Your task to perform on an android device: set an alarm Image 0: 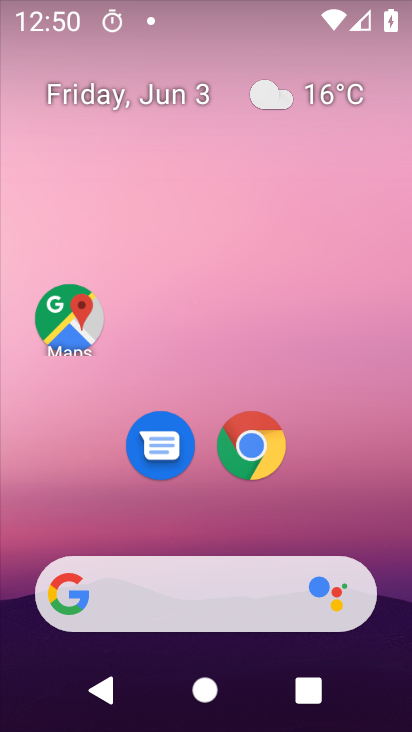
Step 0: drag from (195, 527) to (178, 103)
Your task to perform on an android device: set an alarm Image 1: 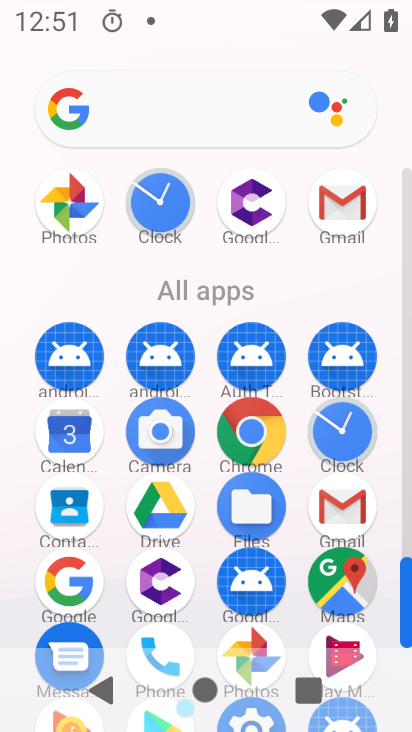
Step 1: click (128, 219)
Your task to perform on an android device: set an alarm Image 2: 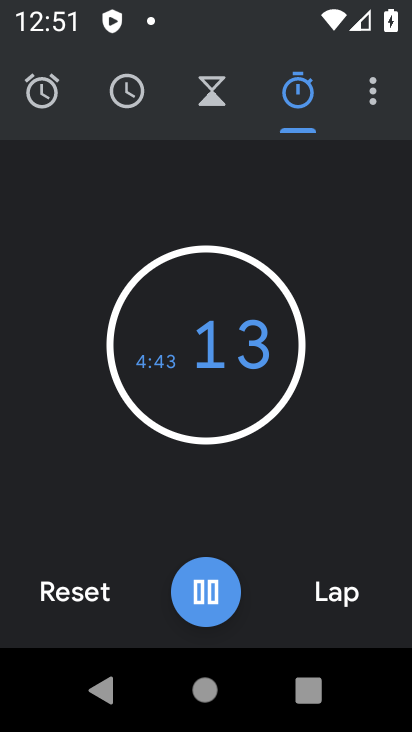
Step 2: click (70, 104)
Your task to perform on an android device: set an alarm Image 3: 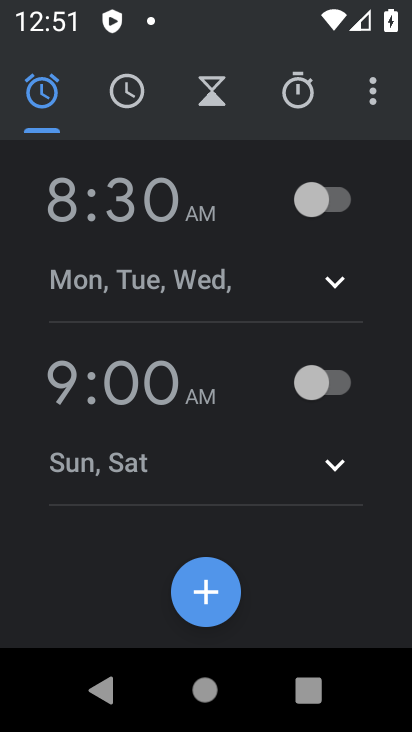
Step 3: click (350, 207)
Your task to perform on an android device: set an alarm Image 4: 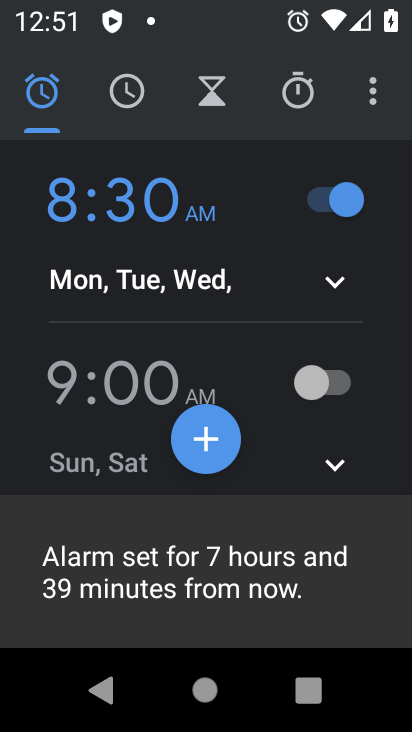
Step 4: task complete